Your task to perform on an android device: turn smart compose on in the gmail app Image 0: 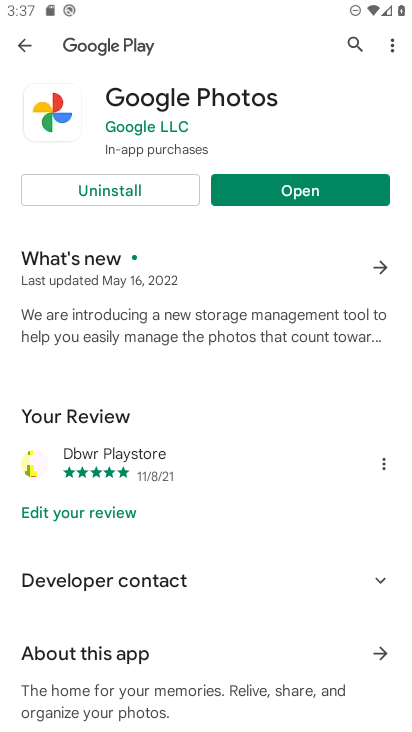
Step 0: press home button
Your task to perform on an android device: turn smart compose on in the gmail app Image 1: 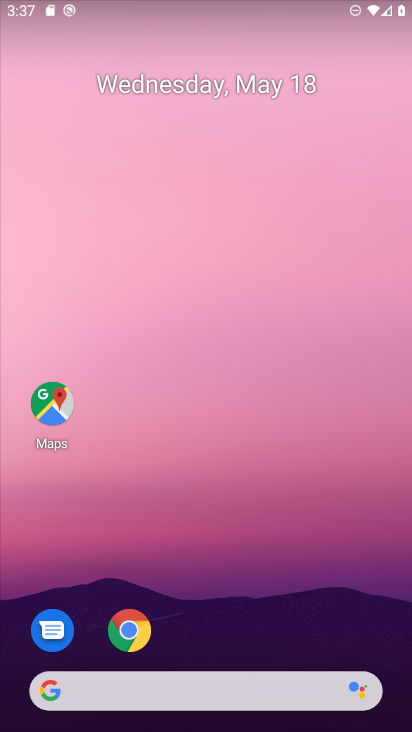
Step 1: drag from (214, 642) to (239, 70)
Your task to perform on an android device: turn smart compose on in the gmail app Image 2: 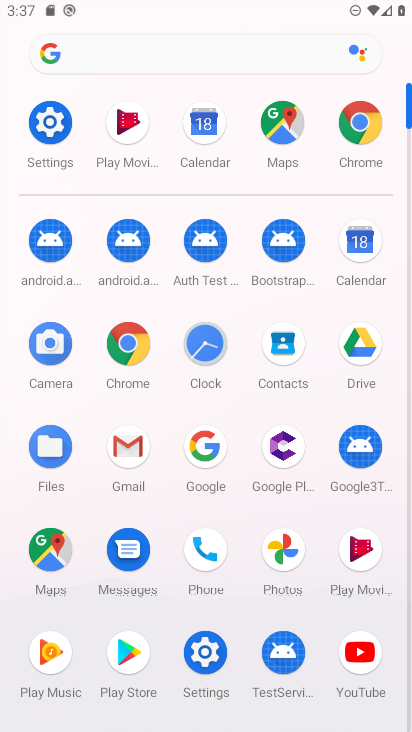
Step 2: click (123, 445)
Your task to perform on an android device: turn smart compose on in the gmail app Image 3: 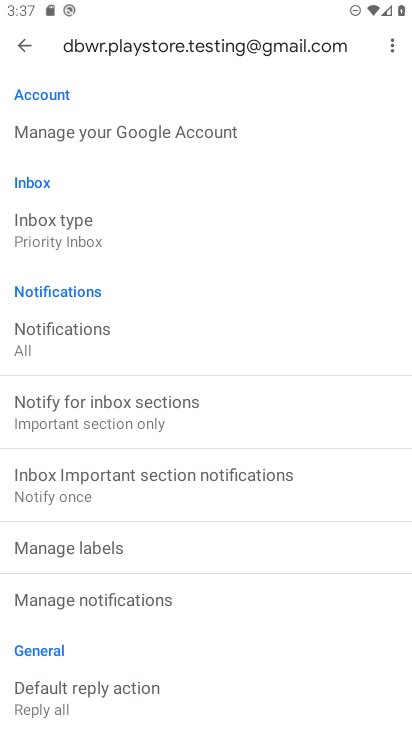
Step 3: task complete